Your task to perform on an android device: turn on data saver in the chrome app Image 0: 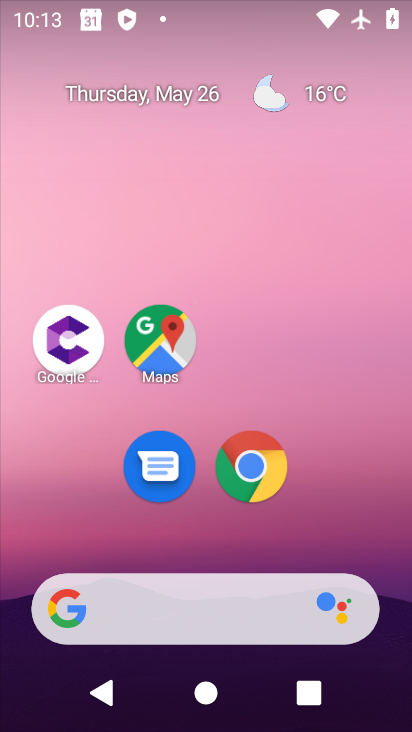
Step 0: click (262, 466)
Your task to perform on an android device: turn on data saver in the chrome app Image 1: 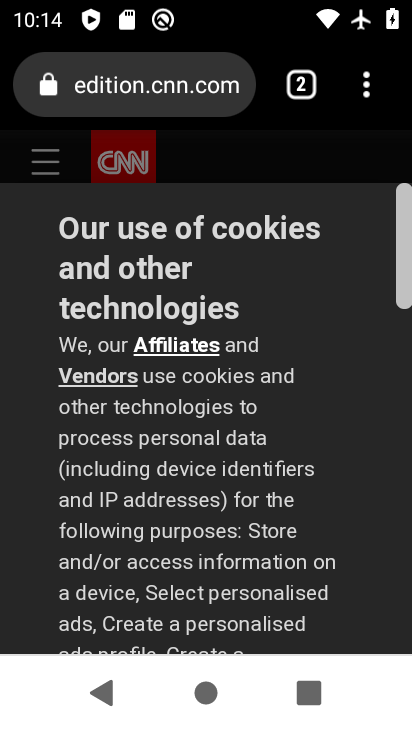
Step 1: click (367, 80)
Your task to perform on an android device: turn on data saver in the chrome app Image 2: 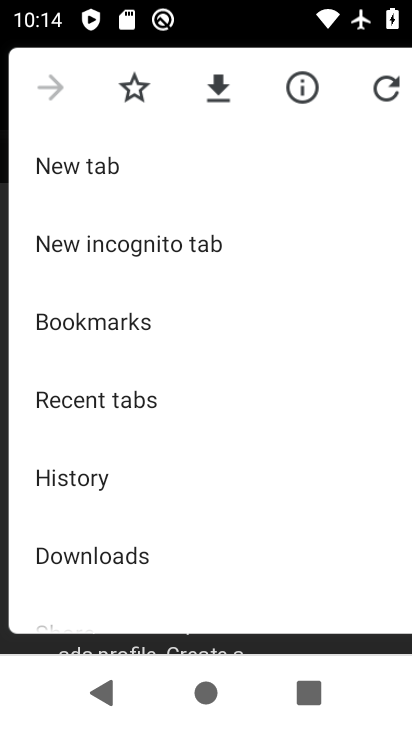
Step 2: drag from (216, 477) to (184, 175)
Your task to perform on an android device: turn on data saver in the chrome app Image 3: 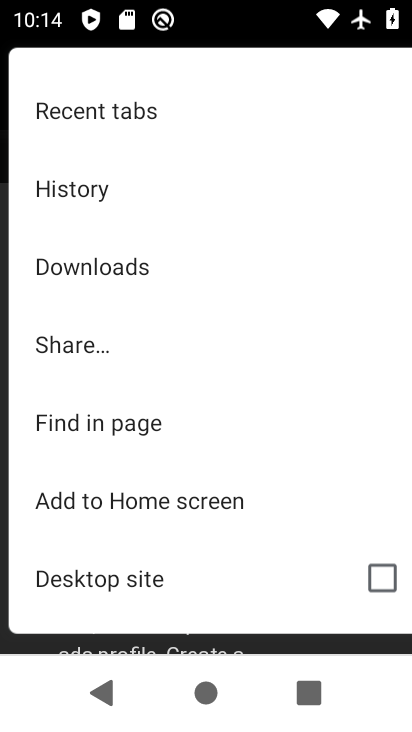
Step 3: drag from (206, 523) to (149, 180)
Your task to perform on an android device: turn on data saver in the chrome app Image 4: 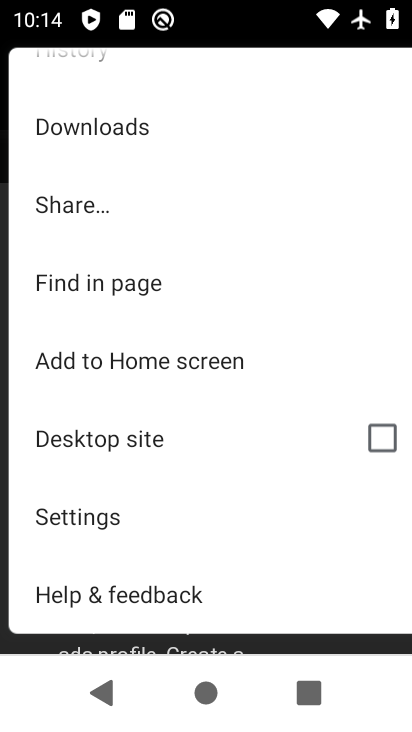
Step 4: click (103, 517)
Your task to perform on an android device: turn on data saver in the chrome app Image 5: 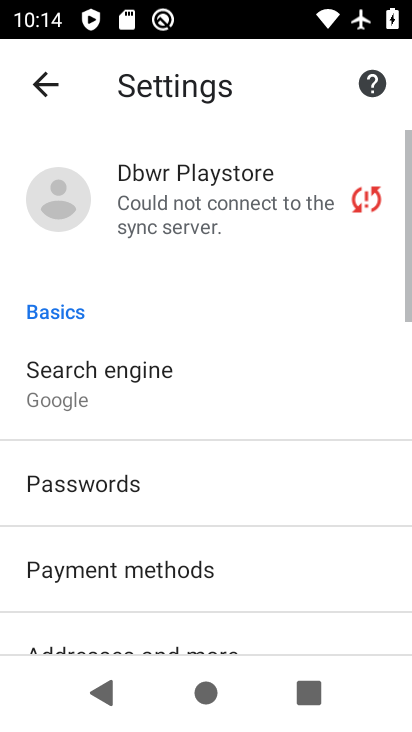
Step 5: drag from (206, 531) to (179, 59)
Your task to perform on an android device: turn on data saver in the chrome app Image 6: 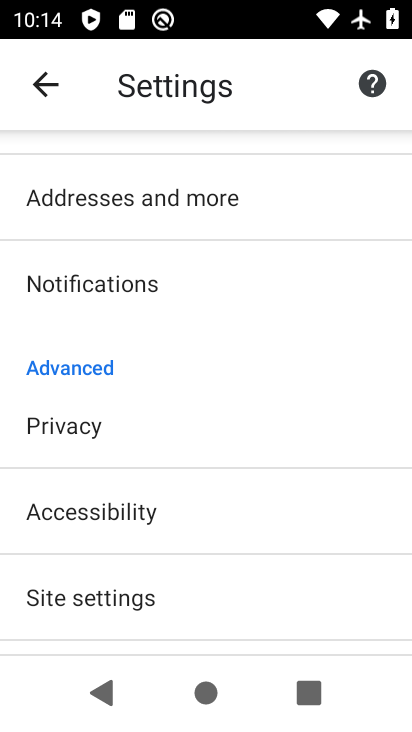
Step 6: drag from (271, 485) to (268, 146)
Your task to perform on an android device: turn on data saver in the chrome app Image 7: 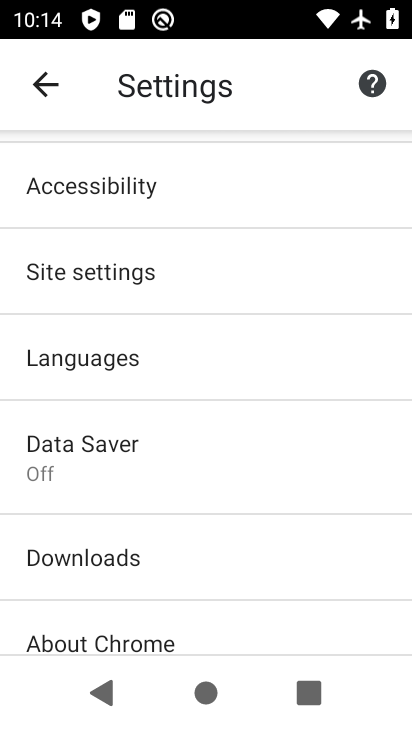
Step 7: click (103, 443)
Your task to perform on an android device: turn on data saver in the chrome app Image 8: 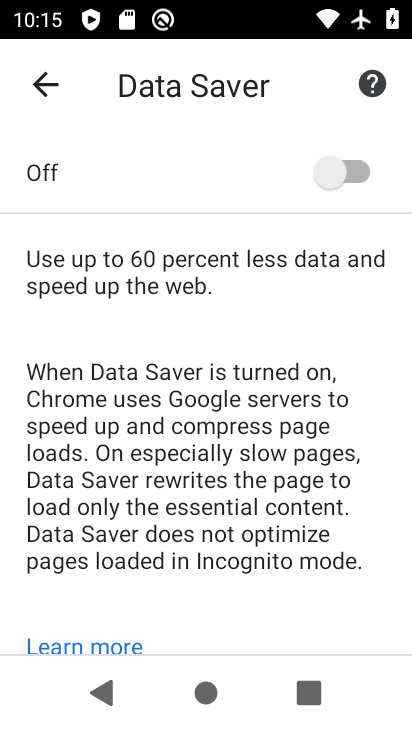
Step 8: click (336, 185)
Your task to perform on an android device: turn on data saver in the chrome app Image 9: 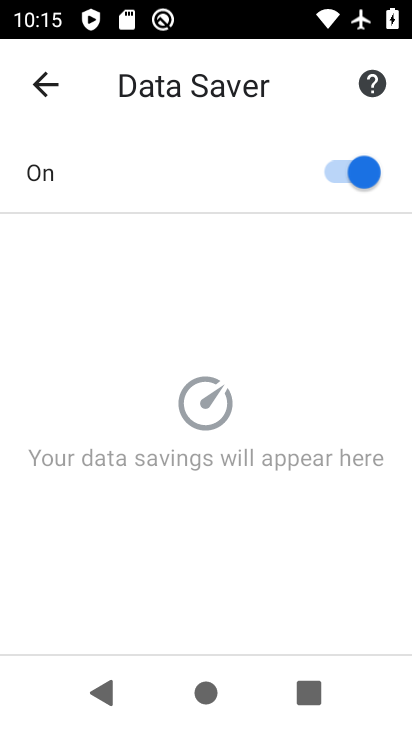
Step 9: task complete